Your task to perform on an android device: add a contact Image 0: 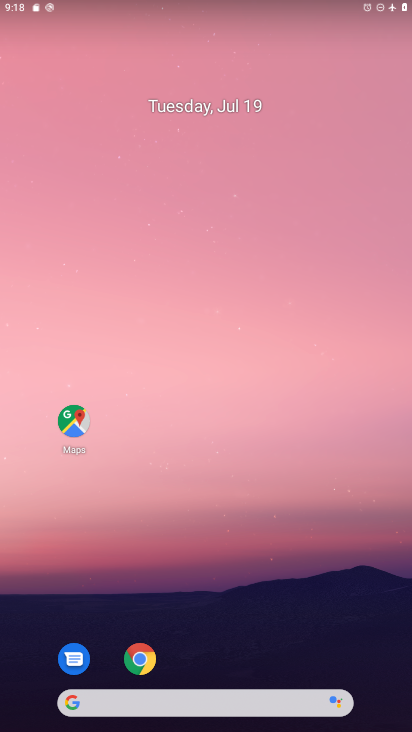
Step 0: drag from (279, 624) to (324, 250)
Your task to perform on an android device: add a contact Image 1: 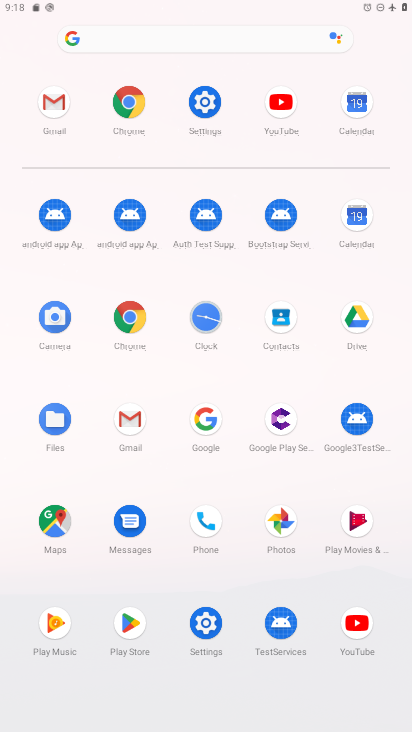
Step 1: click (203, 518)
Your task to perform on an android device: add a contact Image 2: 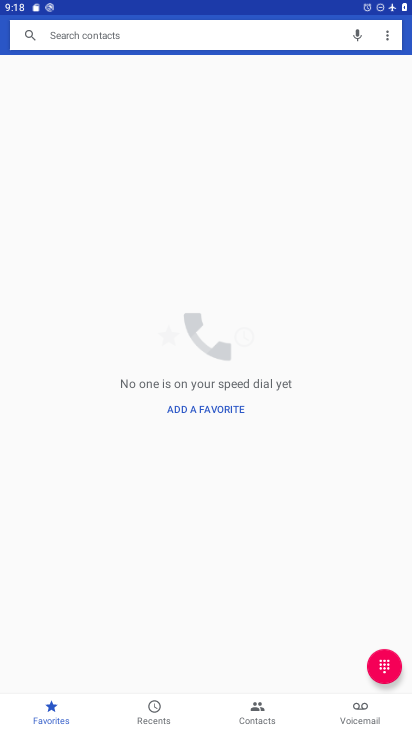
Step 2: click (190, 406)
Your task to perform on an android device: add a contact Image 3: 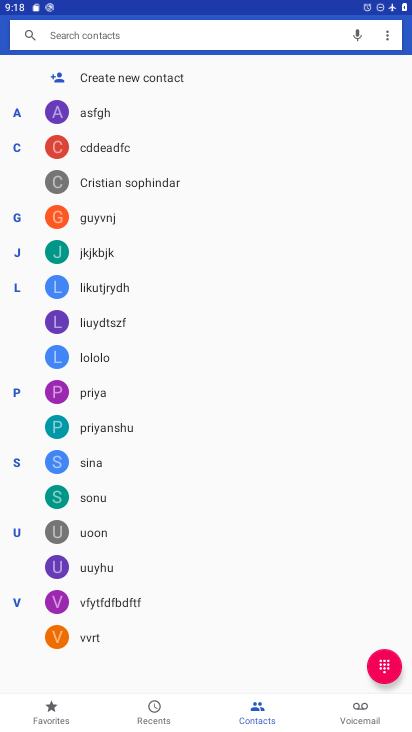
Step 3: click (99, 70)
Your task to perform on an android device: add a contact Image 4: 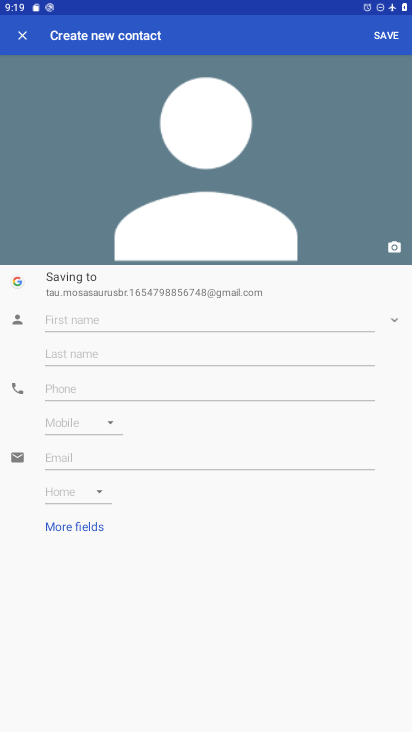
Step 4: click (193, 309)
Your task to perform on an android device: add a contact Image 5: 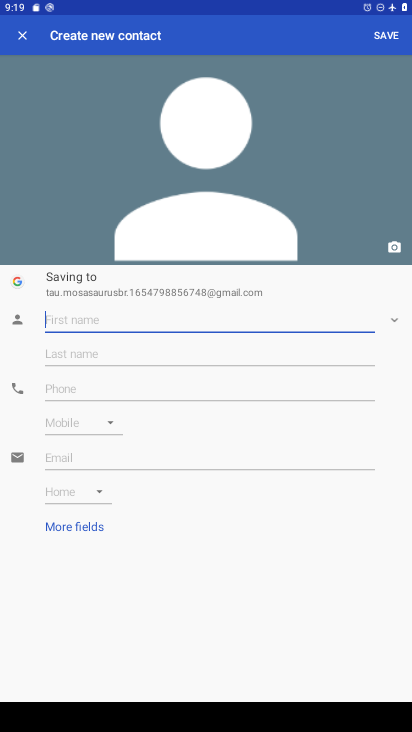
Step 5: type "jhhjhjhjhjhjhjhjhhjhjhj "
Your task to perform on an android device: add a contact Image 6: 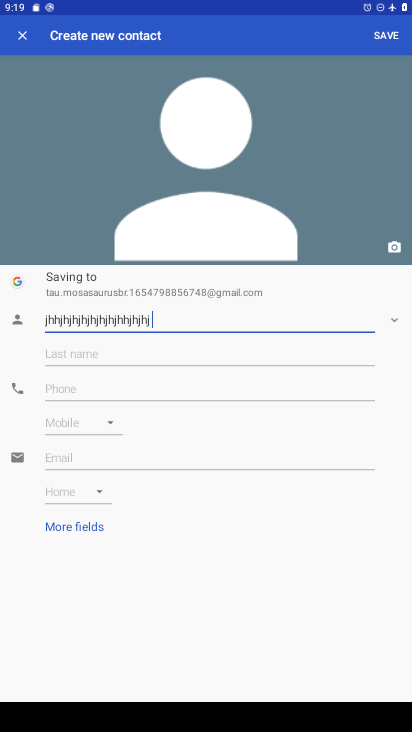
Step 6: click (157, 390)
Your task to perform on an android device: add a contact Image 7: 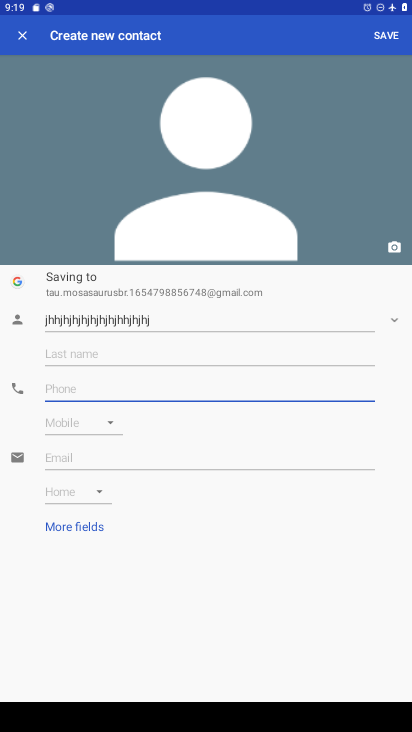
Step 7: type "1234567890- "
Your task to perform on an android device: add a contact Image 8: 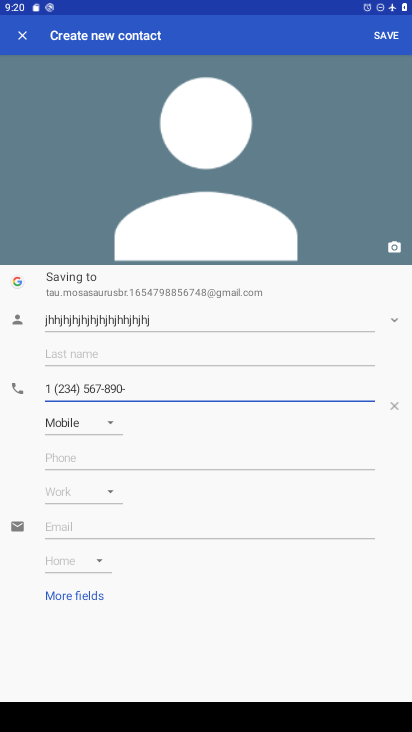
Step 8: click (391, 33)
Your task to perform on an android device: add a contact Image 9: 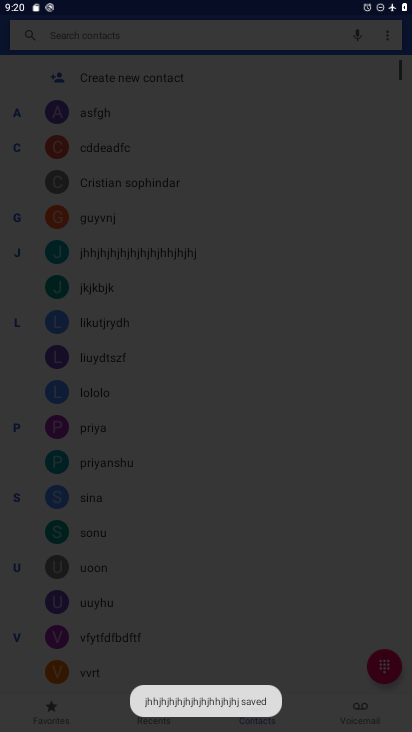
Step 9: task complete